Your task to perform on an android device: turn pop-ups off in chrome Image 0: 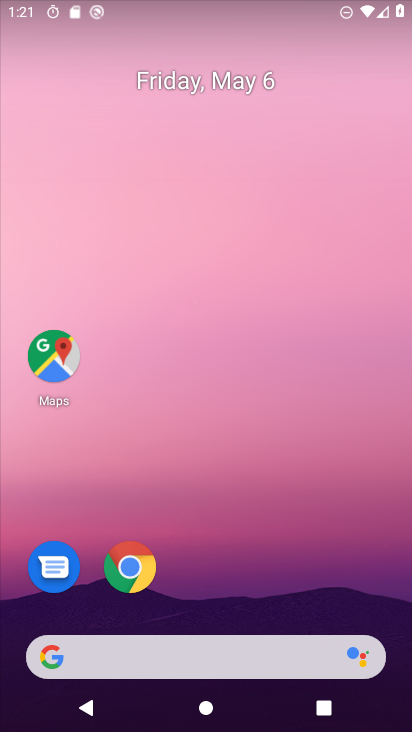
Step 0: click (132, 571)
Your task to perform on an android device: turn pop-ups off in chrome Image 1: 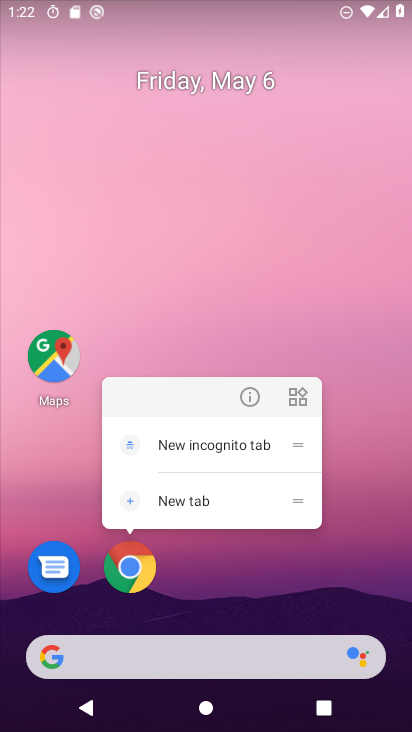
Step 1: click (132, 571)
Your task to perform on an android device: turn pop-ups off in chrome Image 2: 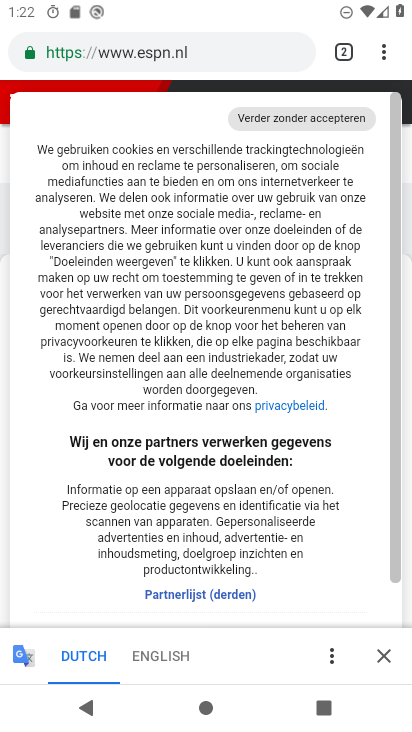
Step 2: drag from (387, 55) to (189, 606)
Your task to perform on an android device: turn pop-ups off in chrome Image 3: 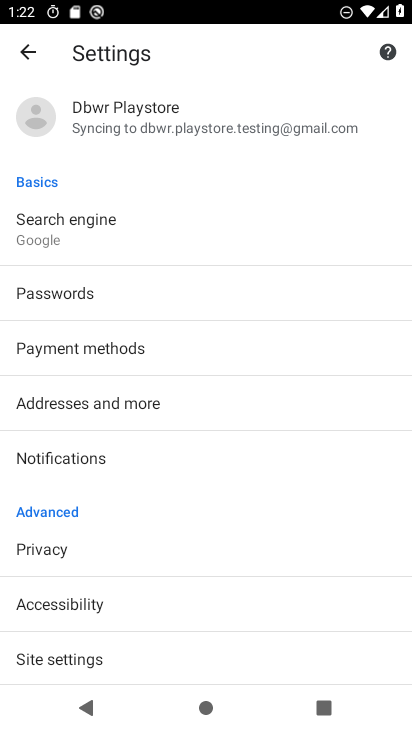
Step 3: click (90, 657)
Your task to perform on an android device: turn pop-ups off in chrome Image 4: 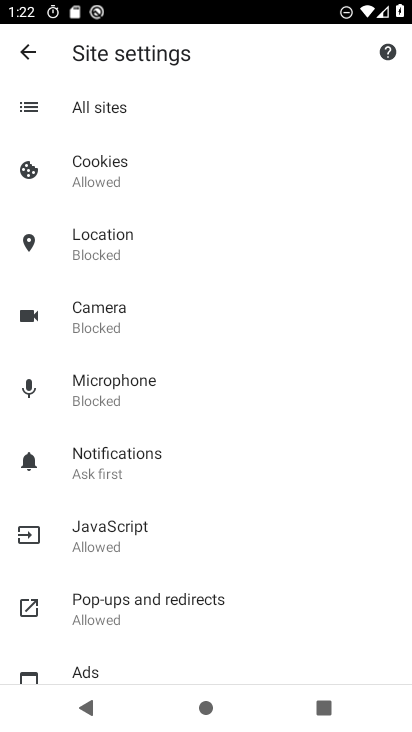
Step 4: click (119, 608)
Your task to perform on an android device: turn pop-ups off in chrome Image 5: 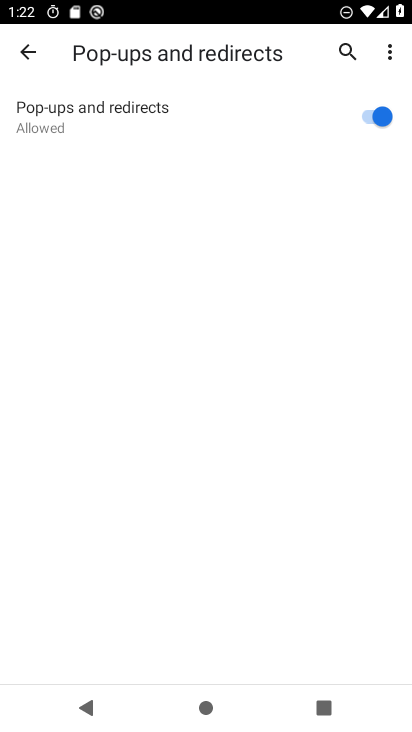
Step 5: click (380, 120)
Your task to perform on an android device: turn pop-ups off in chrome Image 6: 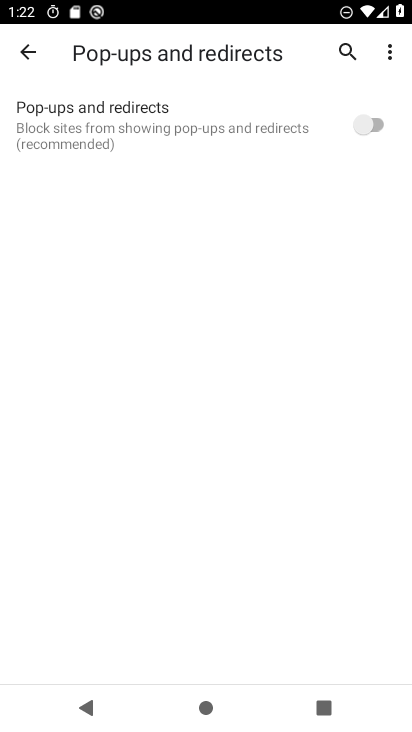
Step 6: task complete